Your task to perform on an android device: turn on the 24-hour format for clock Image 0: 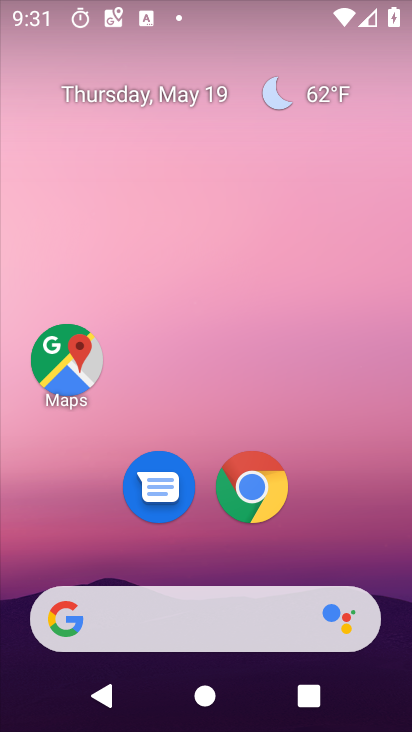
Step 0: drag from (311, 511) to (290, 46)
Your task to perform on an android device: turn on the 24-hour format for clock Image 1: 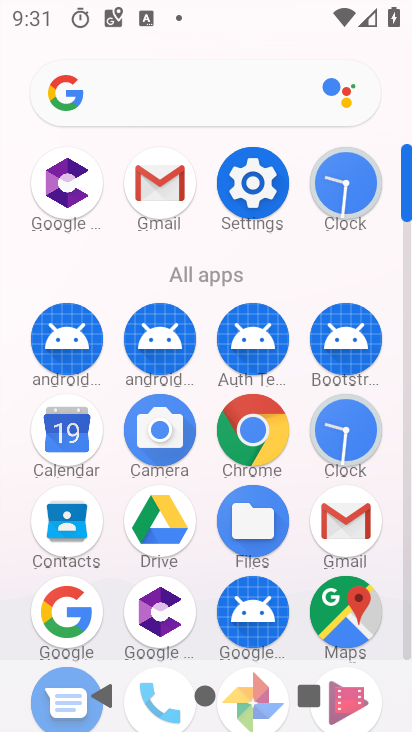
Step 1: click (346, 184)
Your task to perform on an android device: turn on the 24-hour format for clock Image 2: 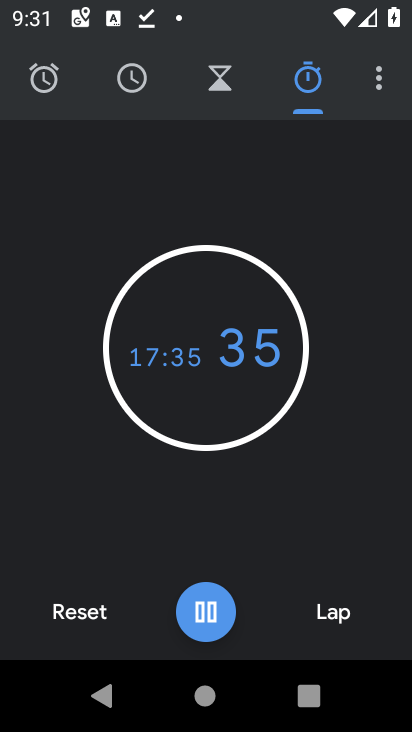
Step 2: click (380, 78)
Your task to perform on an android device: turn on the 24-hour format for clock Image 3: 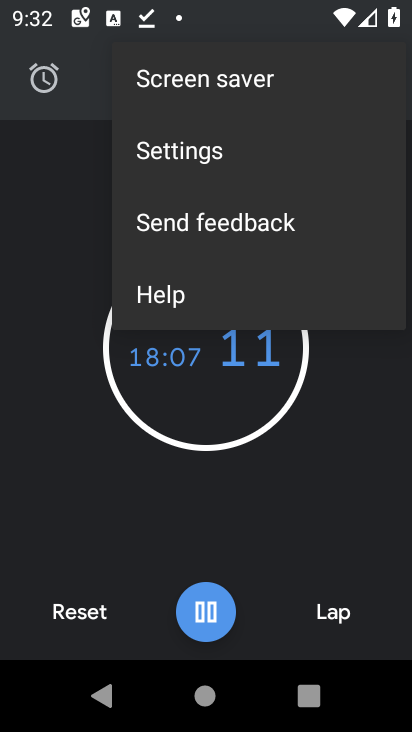
Step 3: click (195, 147)
Your task to perform on an android device: turn on the 24-hour format for clock Image 4: 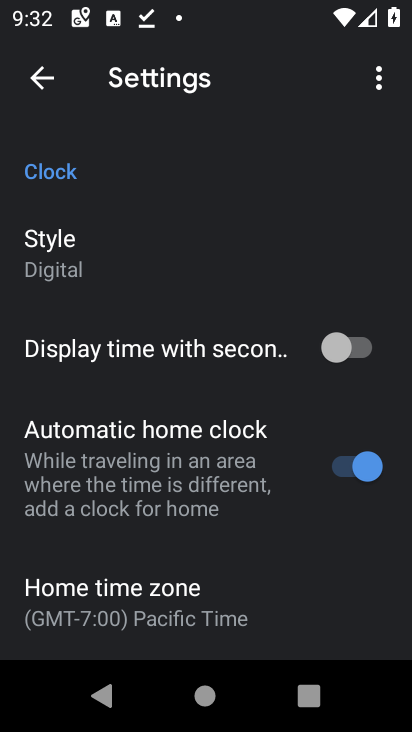
Step 4: drag from (222, 594) to (250, 372)
Your task to perform on an android device: turn on the 24-hour format for clock Image 5: 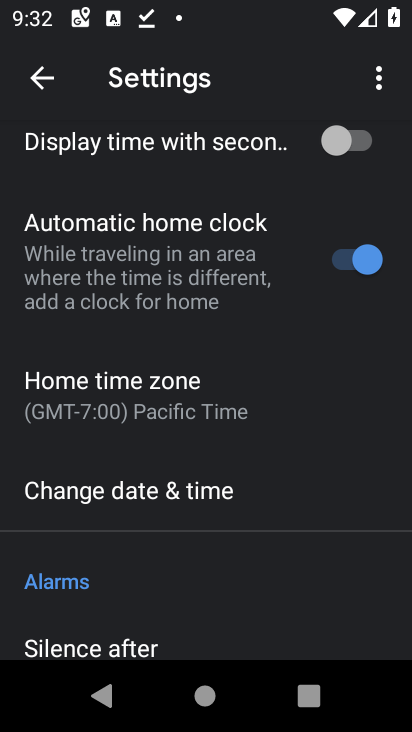
Step 5: click (160, 482)
Your task to perform on an android device: turn on the 24-hour format for clock Image 6: 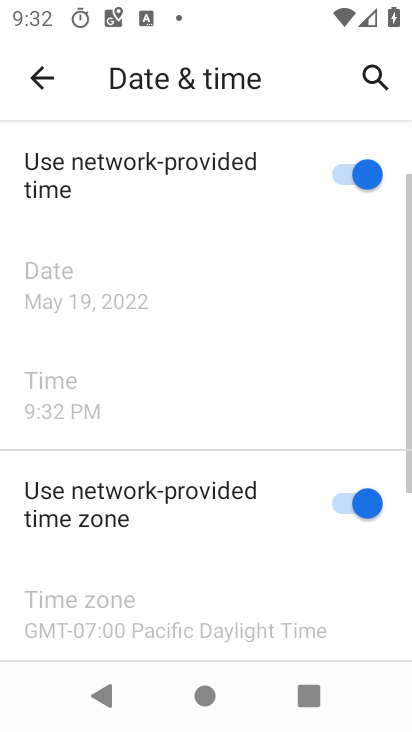
Step 6: drag from (230, 568) to (227, 238)
Your task to perform on an android device: turn on the 24-hour format for clock Image 7: 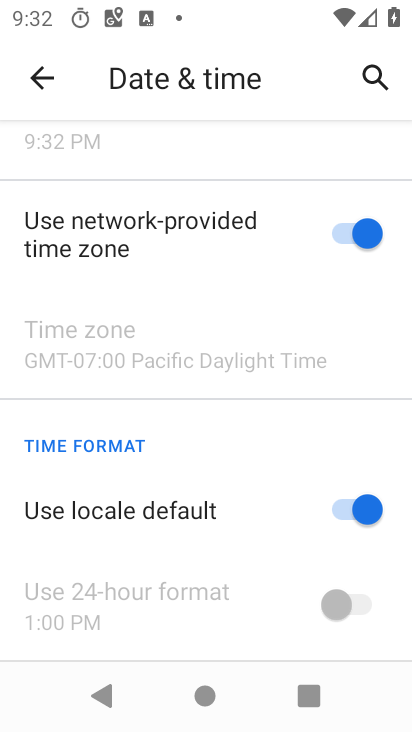
Step 7: click (346, 498)
Your task to perform on an android device: turn on the 24-hour format for clock Image 8: 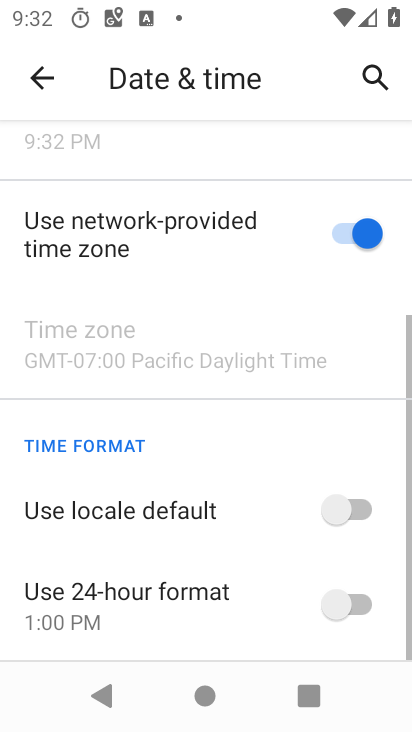
Step 8: click (364, 598)
Your task to perform on an android device: turn on the 24-hour format for clock Image 9: 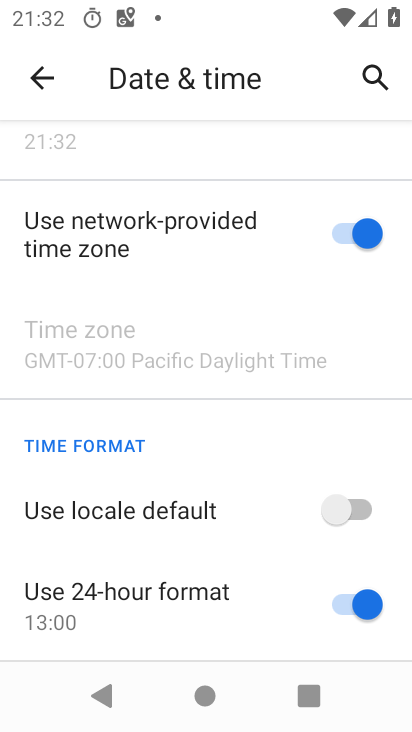
Step 9: task complete